Your task to perform on an android device: refresh tabs in the chrome app Image 0: 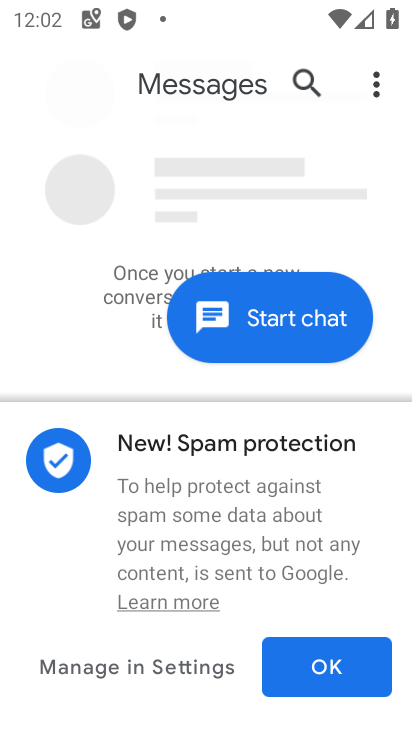
Step 0: click (208, 258)
Your task to perform on an android device: refresh tabs in the chrome app Image 1: 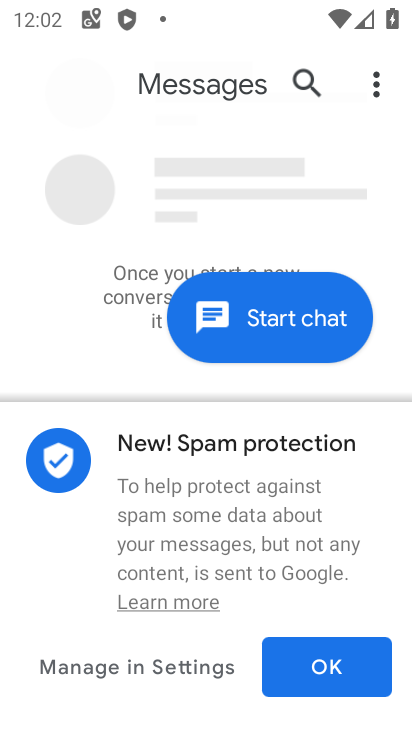
Step 1: press home button
Your task to perform on an android device: refresh tabs in the chrome app Image 2: 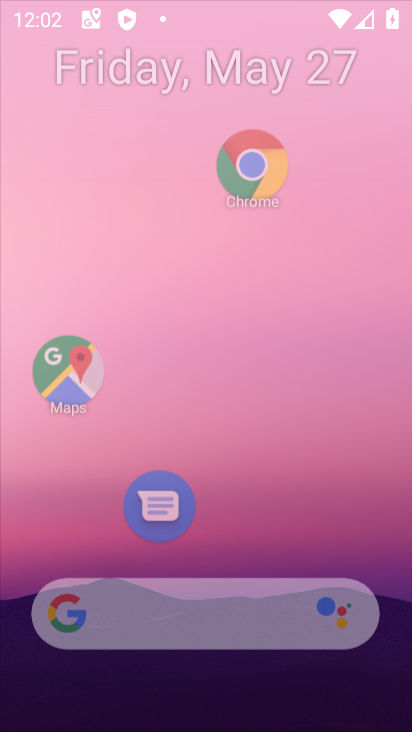
Step 2: drag from (219, 337) to (257, 35)
Your task to perform on an android device: refresh tabs in the chrome app Image 3: 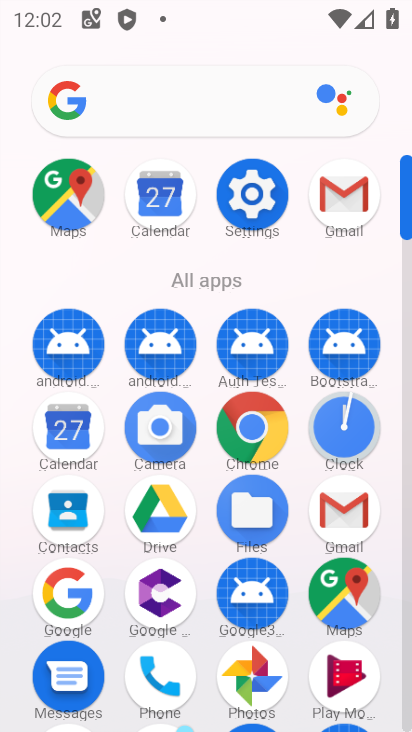
Step 3: click (248, 423)
Your task to perform on an android device: refresh tabs in the chrome app Image 4: 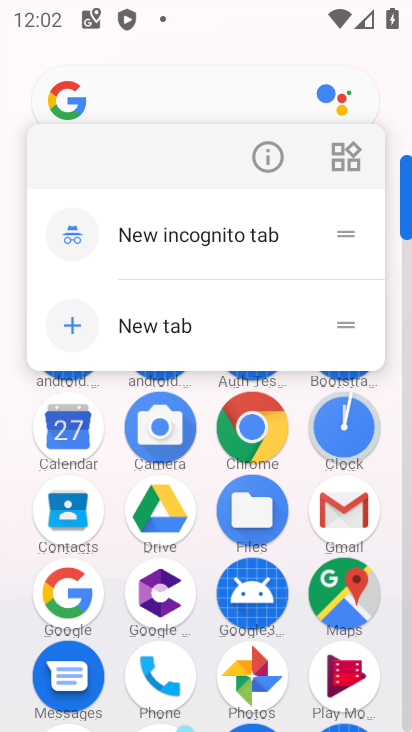
Step 4: click (270, 151)
Your task to perform on an android device: refresh tabs in the chrome app Image 5: 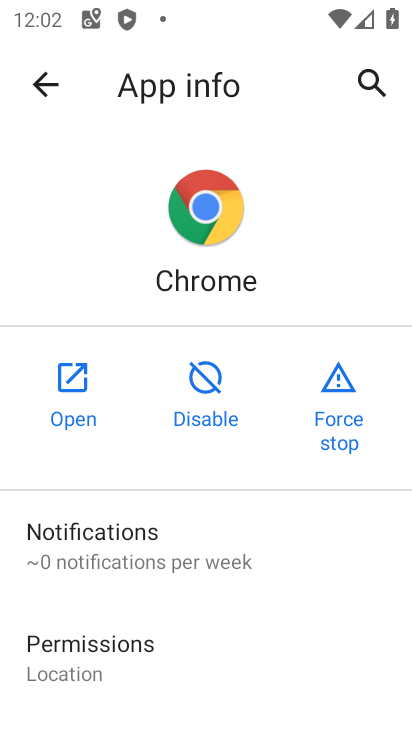
Step 5: click (53, 381)
Your task to perform on an android device: refresh tabs in the chrome app Image 6: 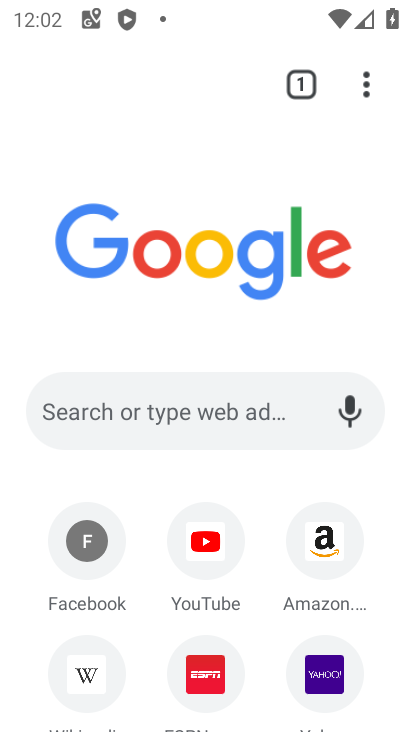
Step 6: click (374, 87)
Your task to perform on an android device: refresh tabs in the chrome app Image 7: 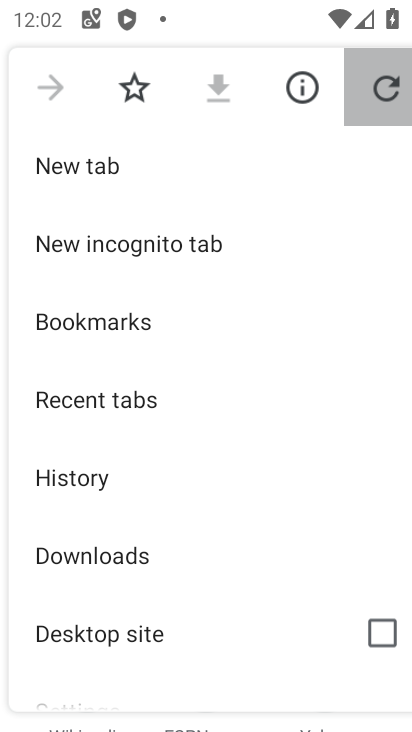
Step 7: click (373, 79)
Your task to perform on an android device: refresh tabs in the chrome app Image 8: 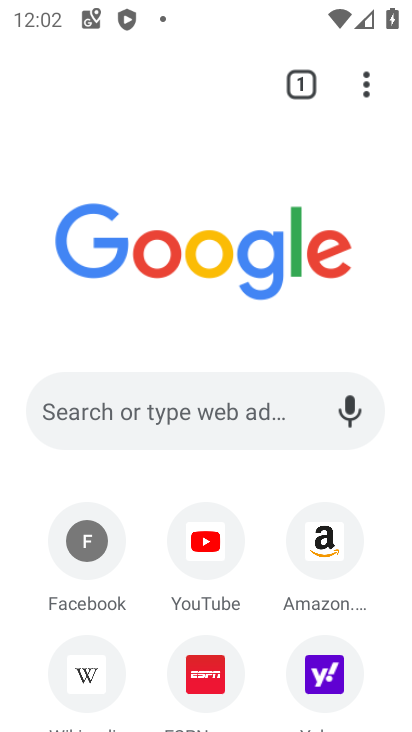
Step 8: task complete